Your task to perform on an android device: turn notification dots on Image 0: 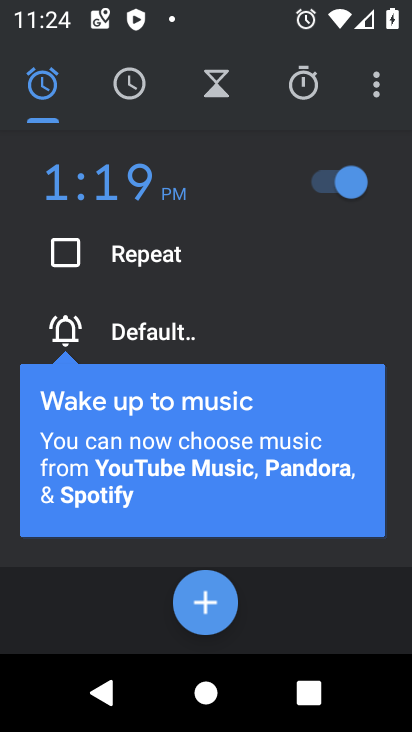
Step 0: press back button
Your task to perform on an android device: turn notification dots on Image 1: 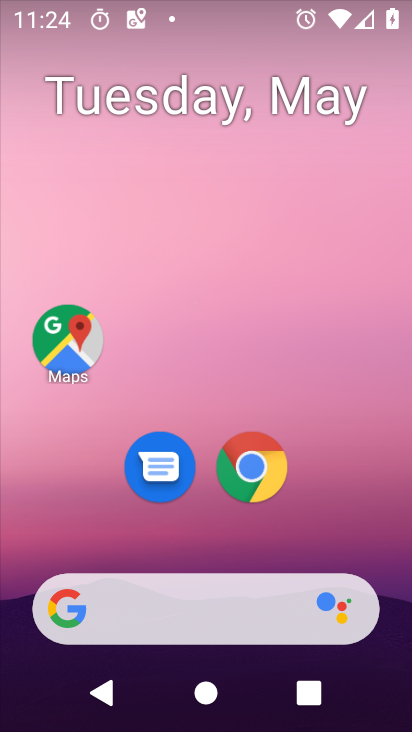
Step 1: drag from (328, 519) to (253, 45)
Your task to perform on an android device: turn notification dots on Image 2: 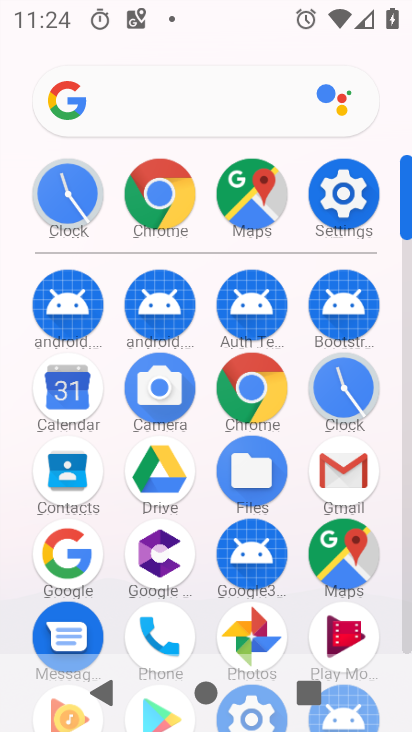
Step 2: drag from (6, 472) to (2, 247)
Your task to perform on an android device: turn notification dots on Image 3: 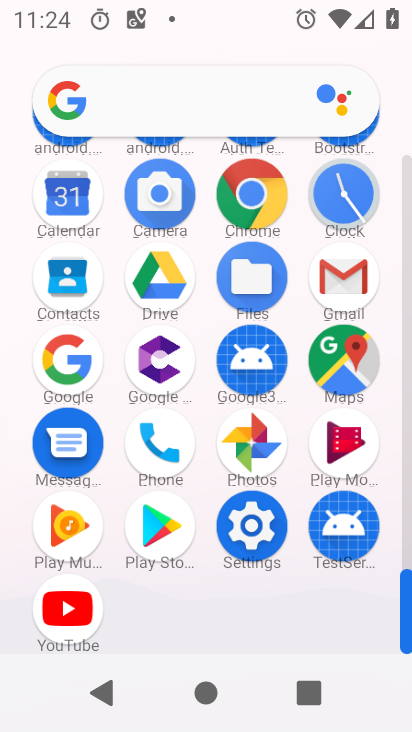
Step 3: click (249, 523)
Your task to perform on an android device: turn notification dots on Image 4: 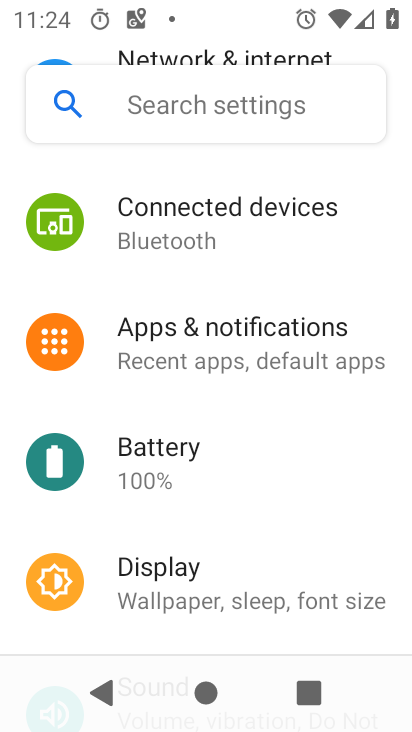
Step 4: click (249, 339)
Your task to perform on an android device: turn notification dots on Image 5: 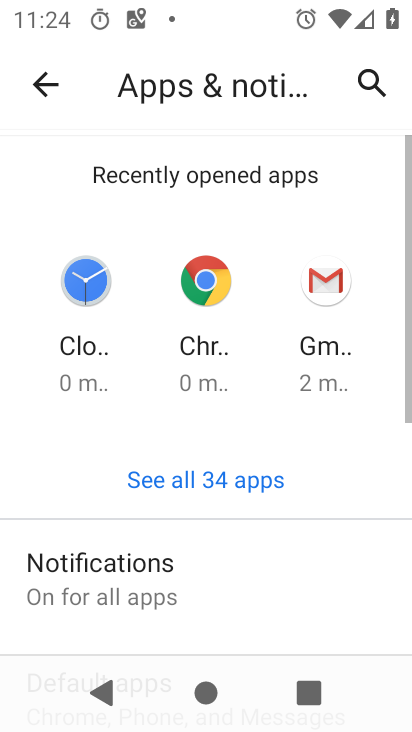
Step 5: drag from (229, 513) to (260, 186)
Your task to perform on an android device: turn notification dots on Image 6: 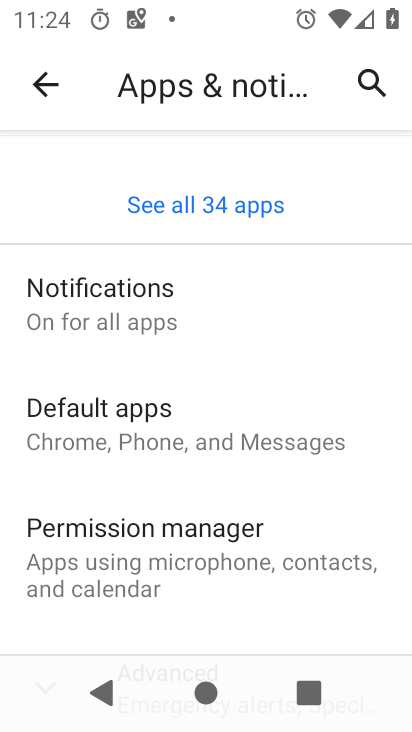
Step 6: click (174, 275)
Your task to perform on an android device: turn notification dots on Image 7: 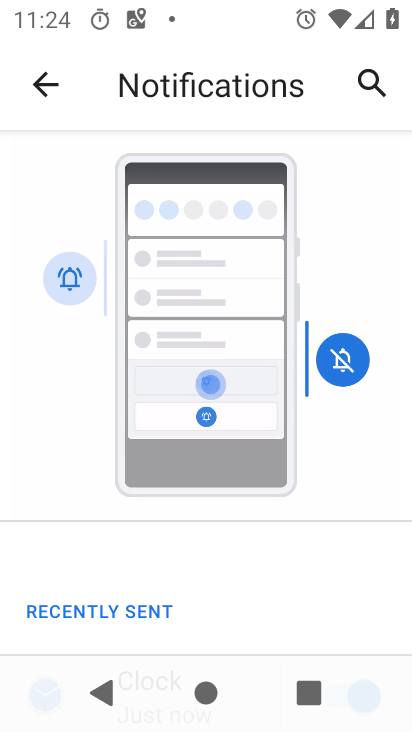
Step 7: drag from (202, 544) to (253, 151)
Your task to perform on an android device: turn notification dots on Image 8: 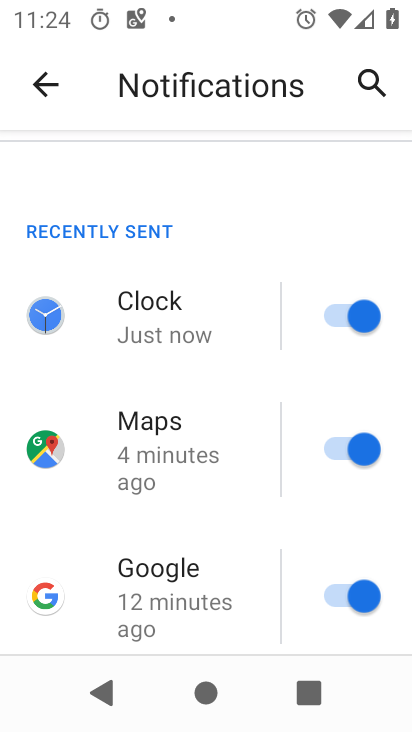
Step 8: drag from (215, 530) to (229, 150)
Your task to perform on an android device: turn notification dots on Image 9: 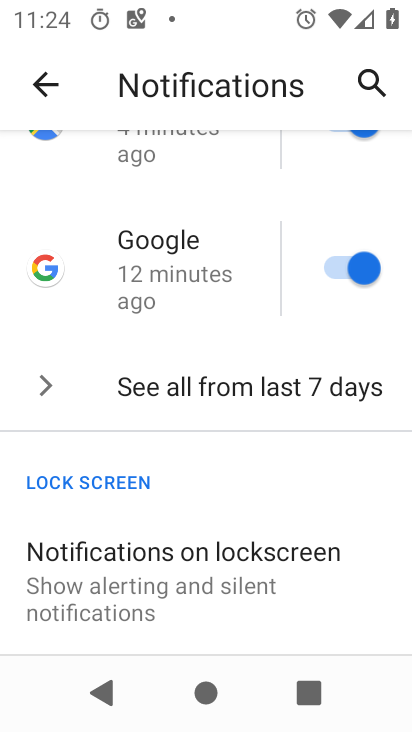
Step 9: drag from (165, 504) to (180, 175)
Your task to perform on an android device: turn notification dots on Image 10: 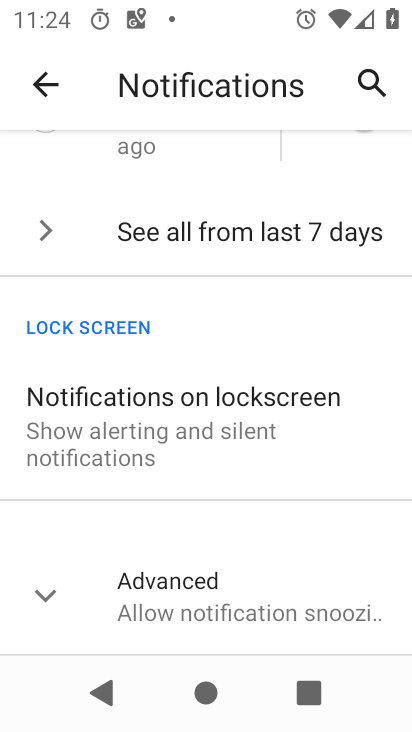
Step 10: click (153, 564)
Your task to perform on an android device: turn notification dots on Image 11: 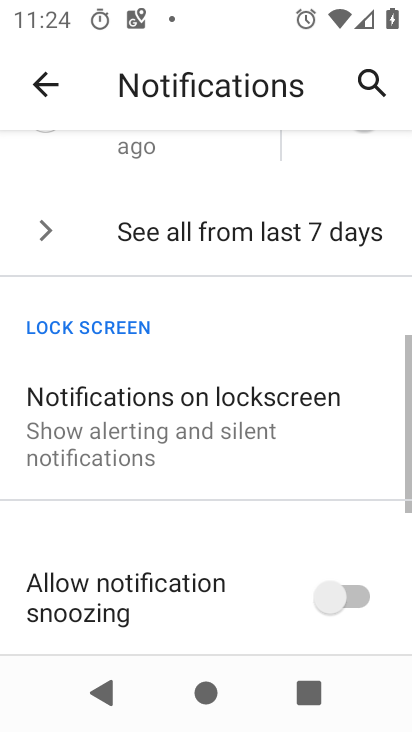
Step 11: drag from (252, 582) to (259, 166)
Your task to perform on an android device: turn notification dots on Image 12: 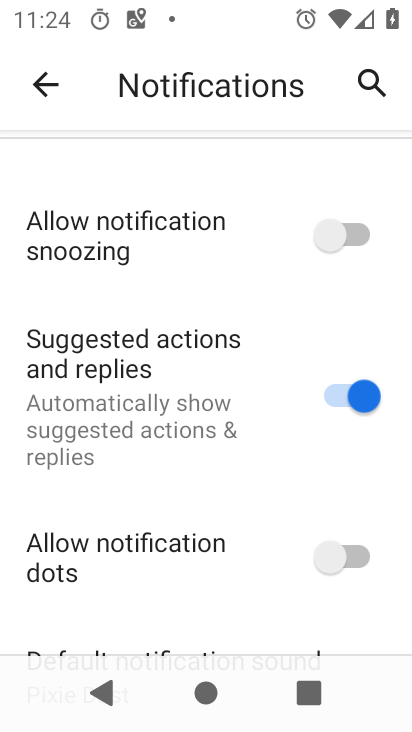
Step 12: drag from (203, 511) to (208, 239)
Your task to perform on an android device: turn notification dots on Image 13: 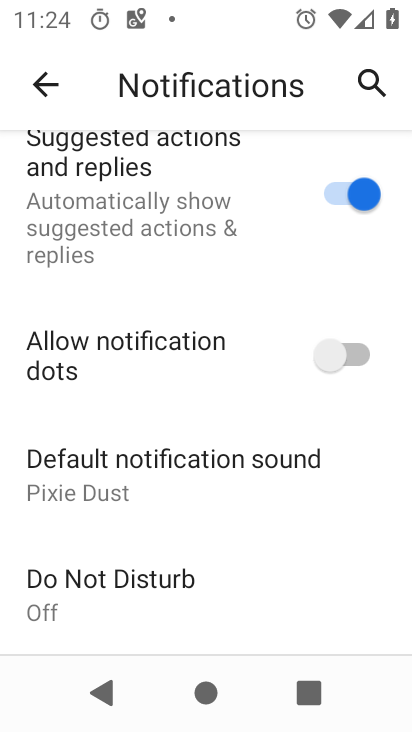
Step 13: click (337, 353)
Your task to perform on an android device: turn notification dots on Image 14: 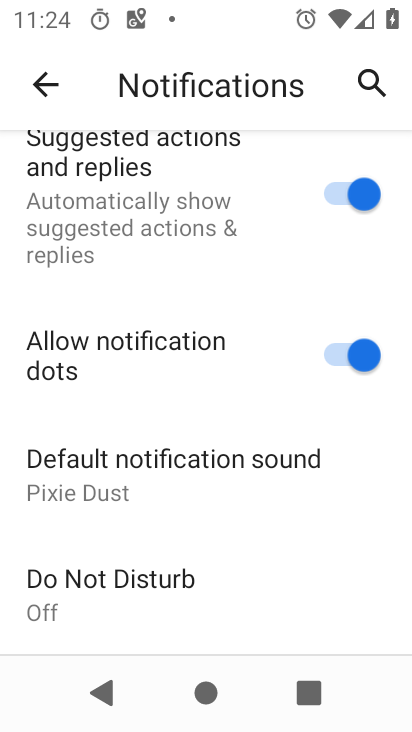
Step 14: task complete